Your task to perform on an android device: Open sound settings Image 0: 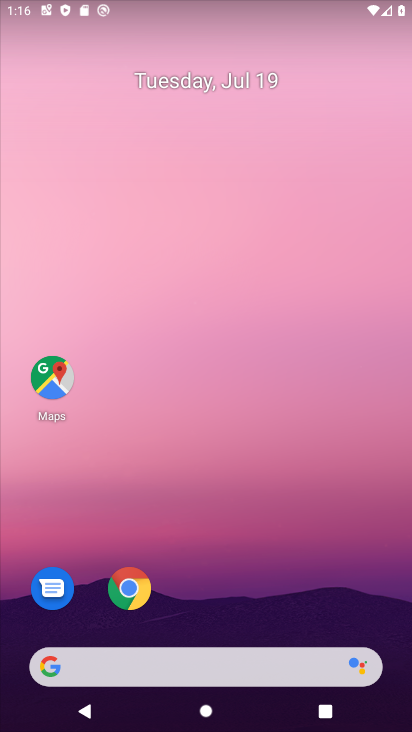
Step 0: drag from (79, 609) to (345, 12)
Your task to perform on an android device: Open sound settings Image 1: 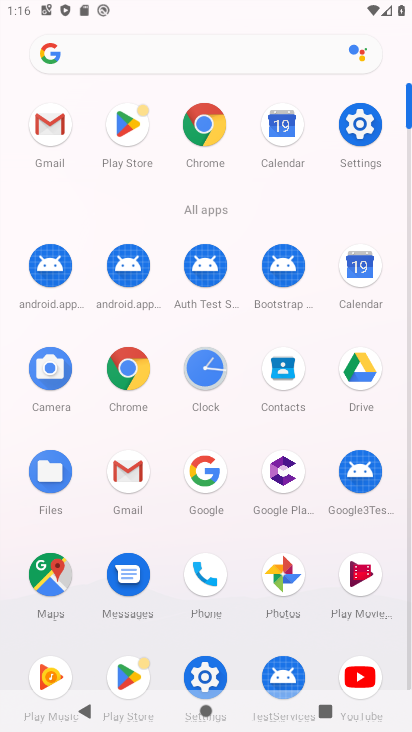
Step 1: click (215, 668)
Your task to perform on an android device: Open sound settings Image 2: 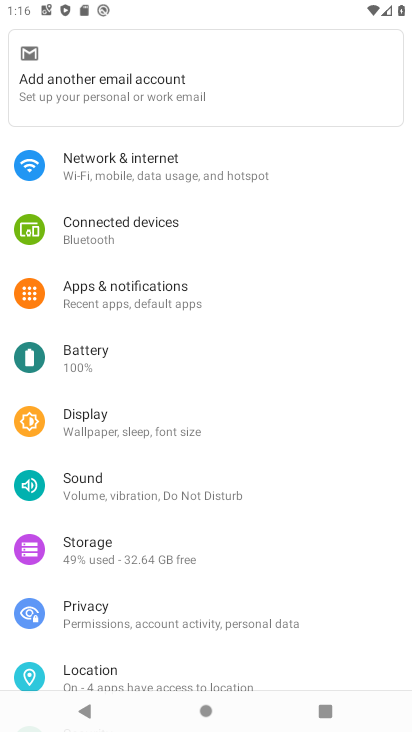
Step 2: click (119, 489)
Your task to perform on an android device: Open sound settings Image 3: 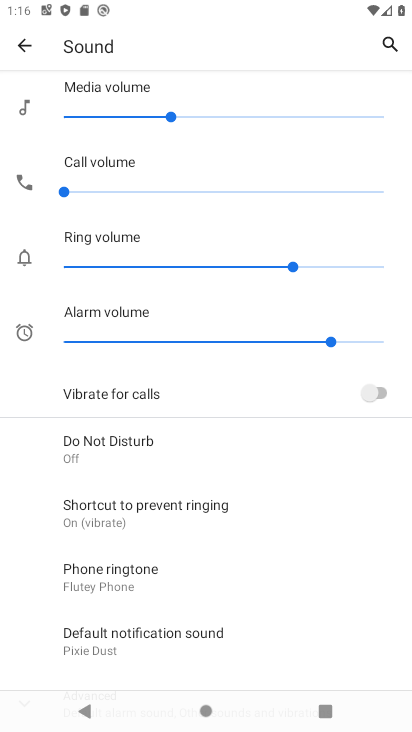
Step 3: task complete